Your task to perform on an android device: Do I have any events tomorrow? Image 0: 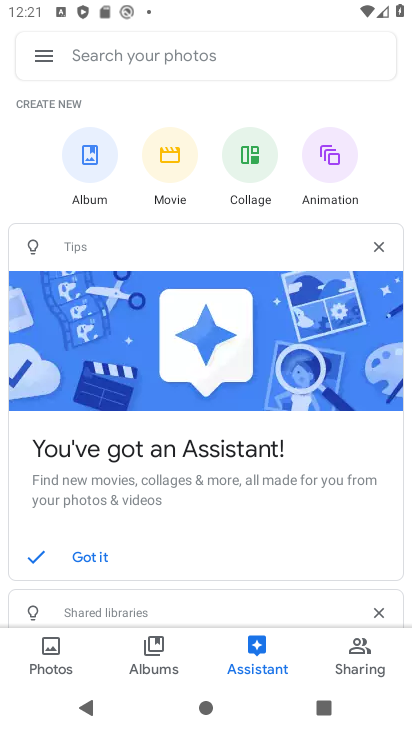
Step 0: click (407, 347)
Your task to perform on an android device: Do I have any events tomorrow? Image 1: 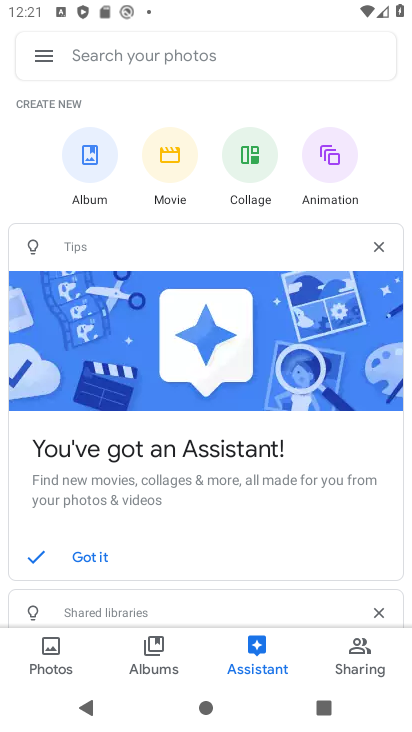
Step 1: press home button
Your task to perform on an android device: Do I have any events tomorrow? Image 2: 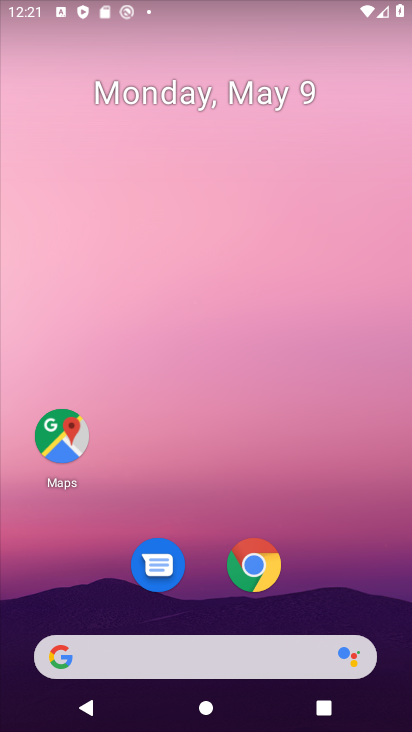
Step 2: drag from (242, 576) to (294, 165)
Your task to perform on an android device: Do I have any events tomorrow? Image 3: 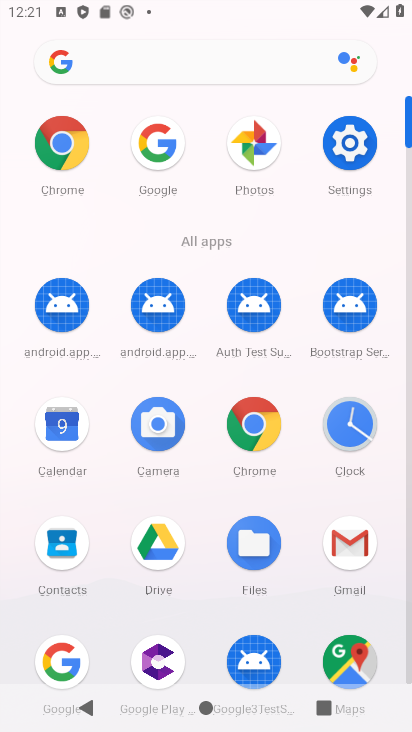
Step 3: click (43, 456)
Your task to perform on an android device: Do I have any events tomorrow? Image 4: 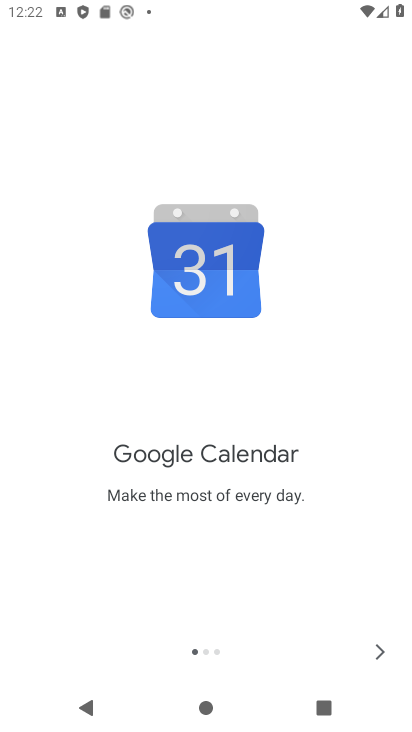
Step 4: click (371, 653)
Your task to perform on an android device: Do I have any events tomorrow? Image 5: 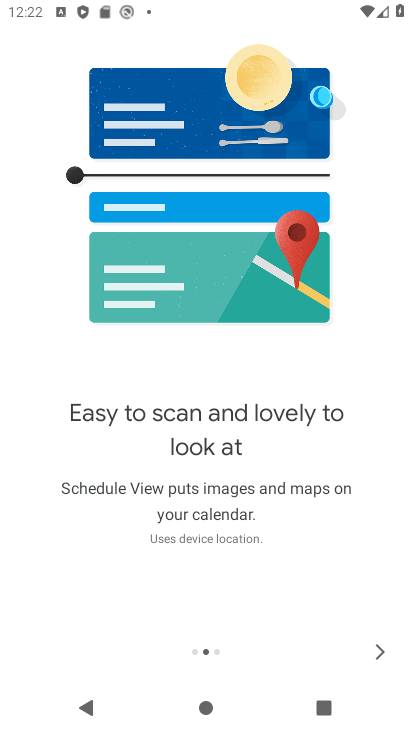
Step 5: click (371, 653)
Your task to perform on an android device: Do I have any events tomorrow? Image 6: 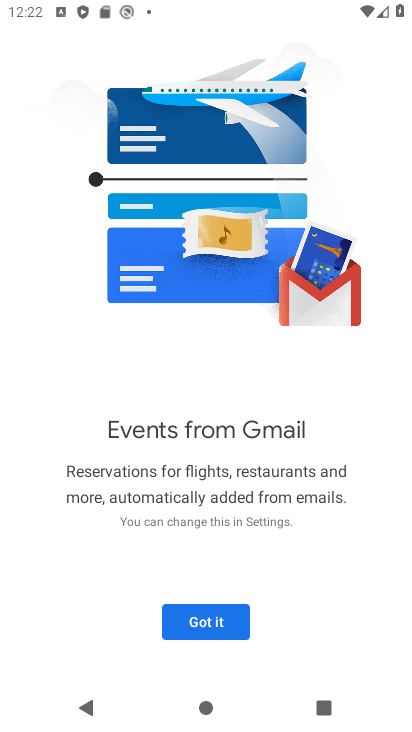
Step 6: click (208, 633)
Your task to perform on an android device: Do I have any events tomorrow? Image 7: 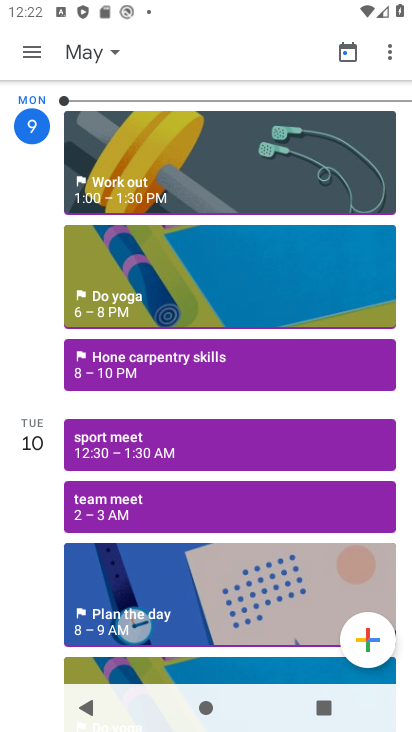
Step 7: task complete